Your task to perform on an android device: turn vacation reply on in the gmail app Image 0: 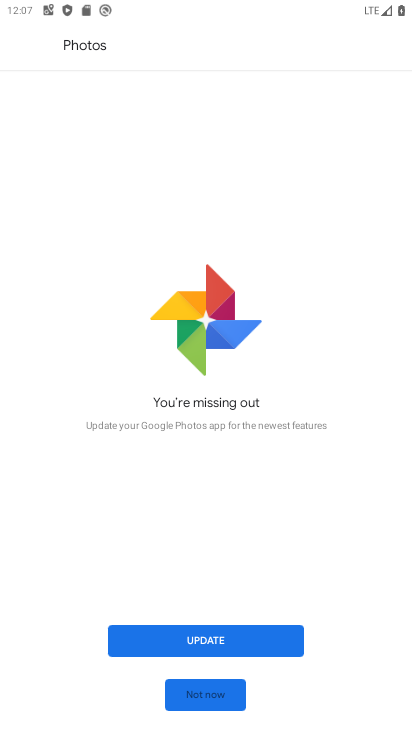
Step 0: press home button
Your task to perform on an android device: turn vacation reply on in the gmail app Image 1: 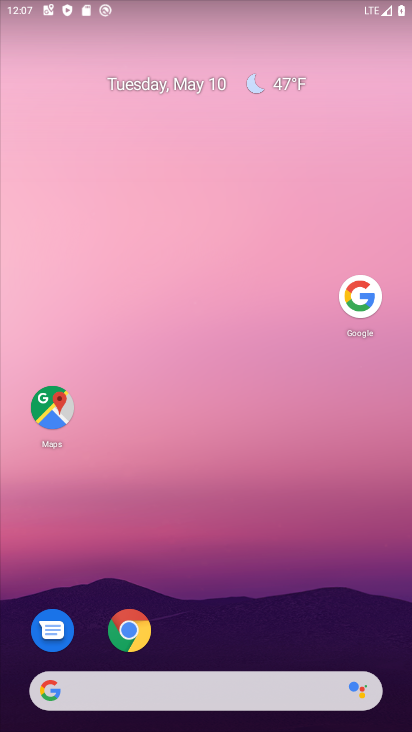
Step 1: drag from (174, 692) to (265, 303)
Your task to perform on an android device: turn vacation reply on in the gmail app Image 2: 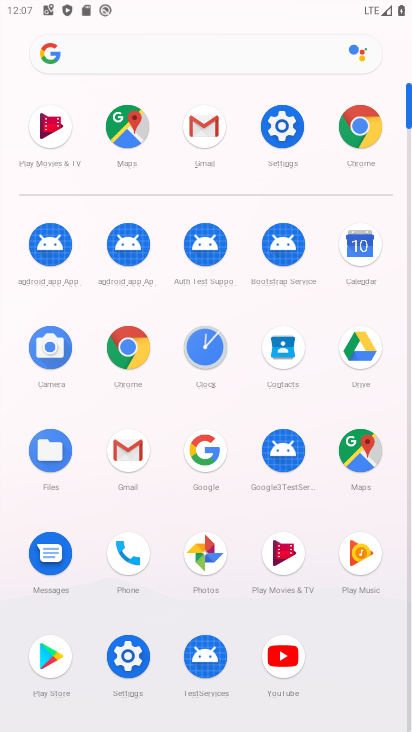
Step 2: click (209, 128)
Your task to perform on an android device: turn vacation reply on in the gmail app Image 3: 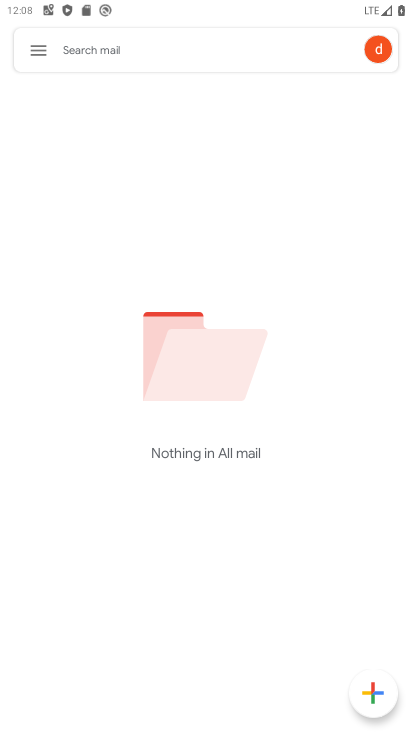
Step 3: click (36, 53)
Your task to perform on an android device: turn vacation reply on in the gmail app Image 4: 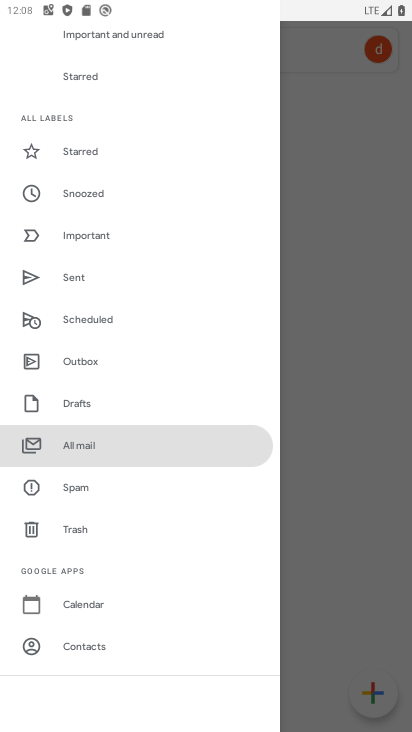
Step 4: drag from (122, 604) to (197, 330)
Your task to perform on an android device: turn vacation reply on in the gmail app Image 5: 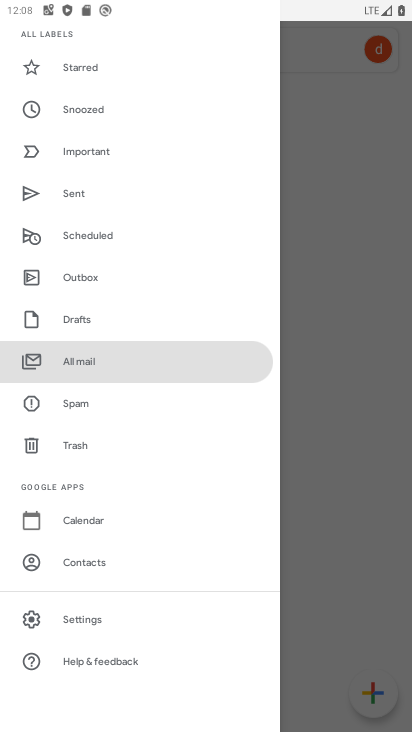
Step 5: click (89, 613)
Your task to perform on an android device: turn vacation reply on in the gmail app Image 6: 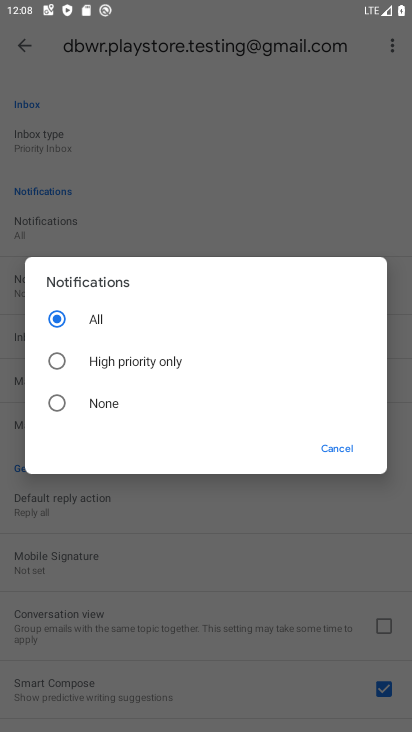
Step 6: click (318, 454)
Your task to perform on an android device: turn vacation reply on in the gmail app Image 7: 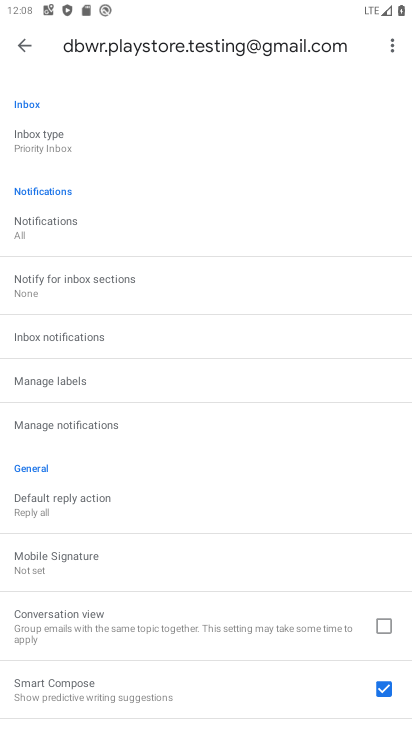
Step 7: drag from (196, 640) to (300, 252)
Your task to perform on an android device: turn vacation reply on in the gmail app Image 8: 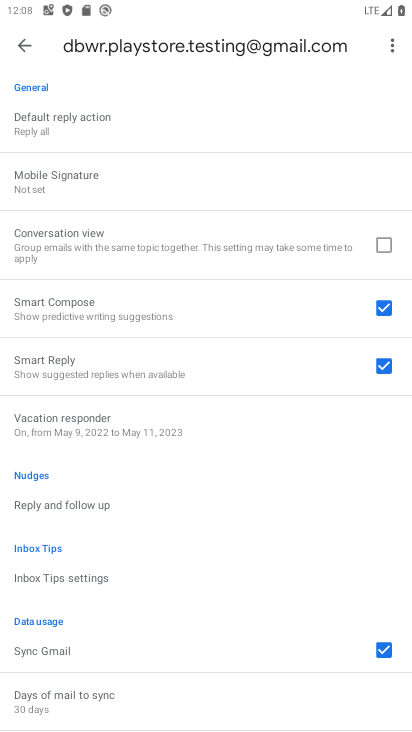
Step 8: click (103, 418)
Your task to perform on an android device: turn vacation reply on in the gmail app Image 9: 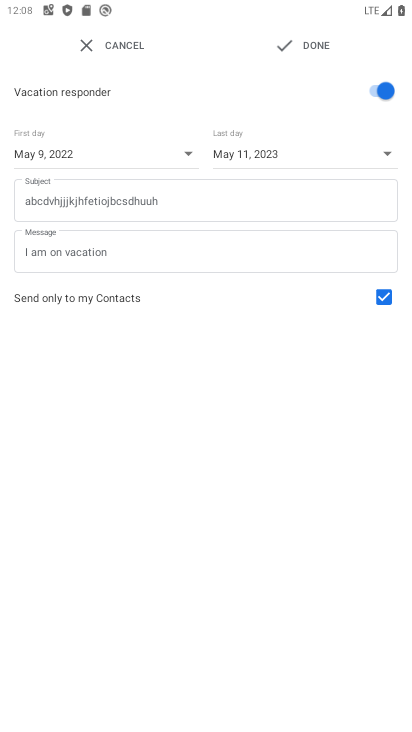
Step 9: task complete